Your task to perform on an android device: add a label to a message in the gmail app Image 0: 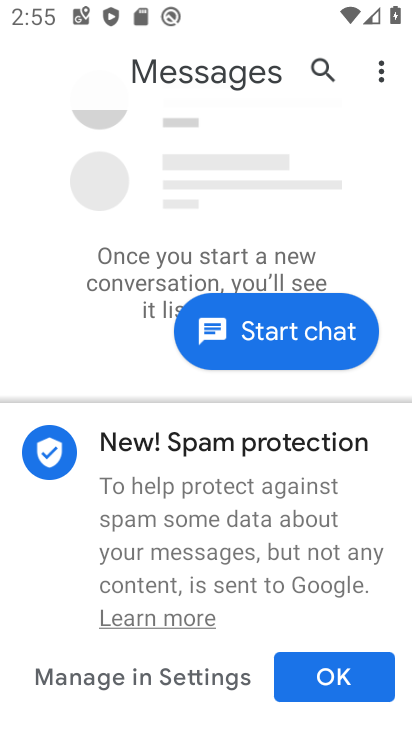
Step 0: press home button
Your task to perform on an android device: add a label to a message in the gmail app Image 1: 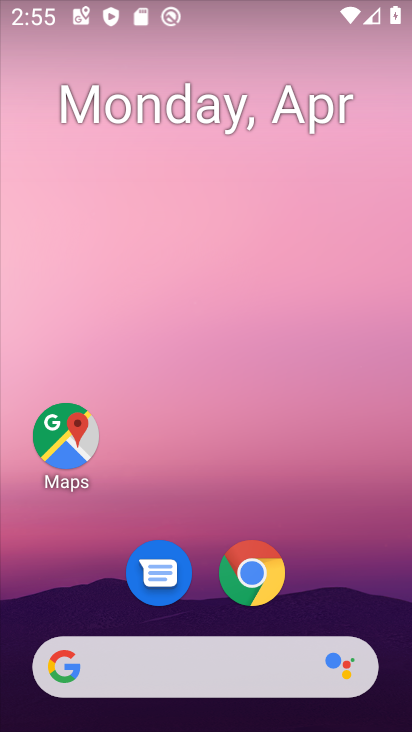
Step 1: drag from (359, 608) to (372, 134)
Your task to perform on an android device: add a label to a message in the gmail app Image 2: 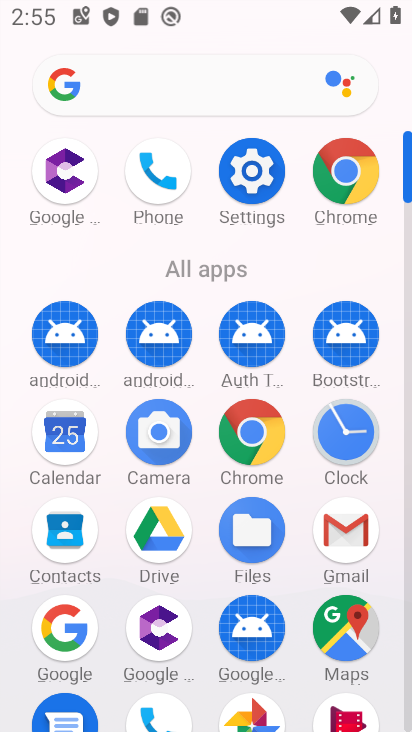
Step 2: click (348, 525)
Your task to perform on an android device: add a label to a message in the gmail app Image 3: 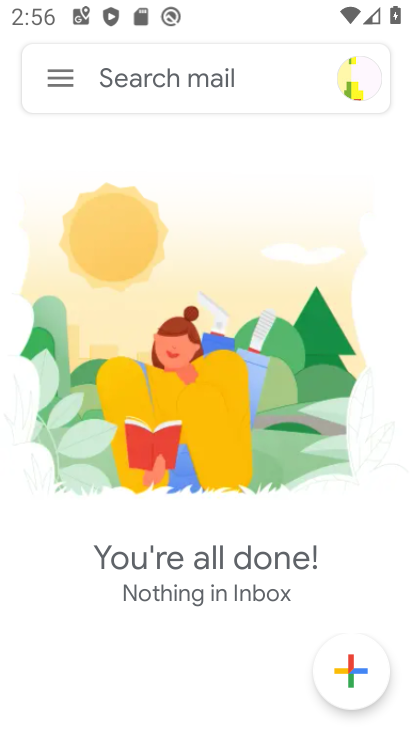
Step 3: task complete